Your task to perform on an android device: see sites visited before in the chrome app Image 0: 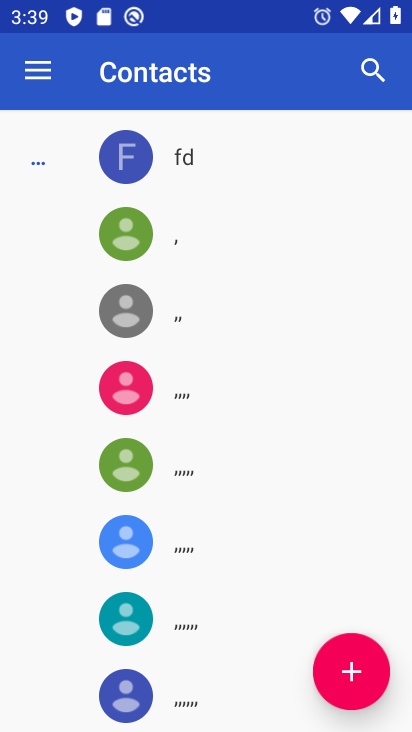
Step 0: press home button
Your task to perform on an android device: see sites visited before in the chrome app Image 1: 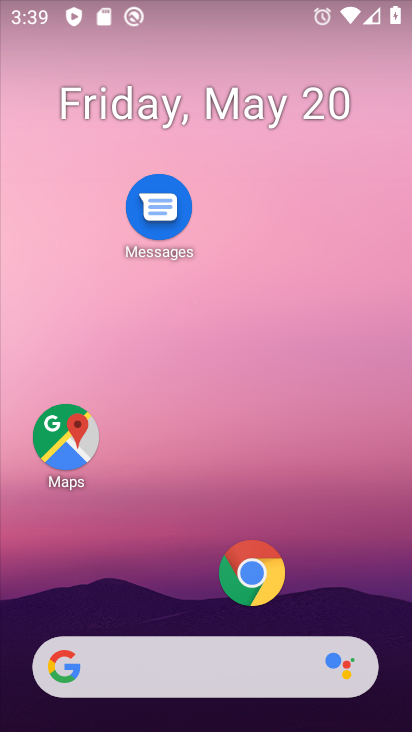
Step 1: click (262, 593)
Your task to perform on an android device: see sites visited before in the chrome app Image 2: 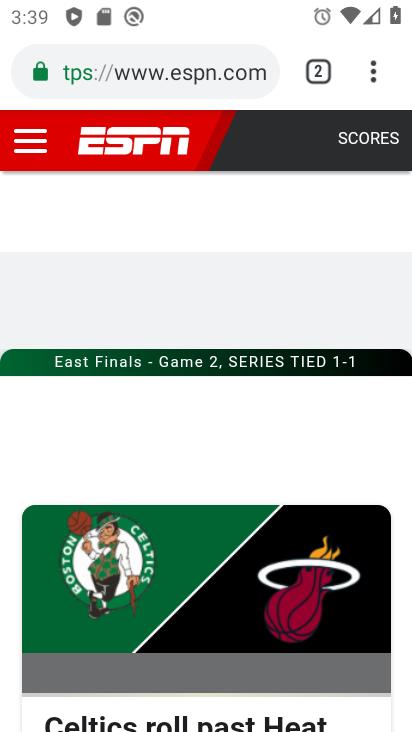
Step 2: task complete